Your task to perform on an android device: all mails in gmail Image 0: 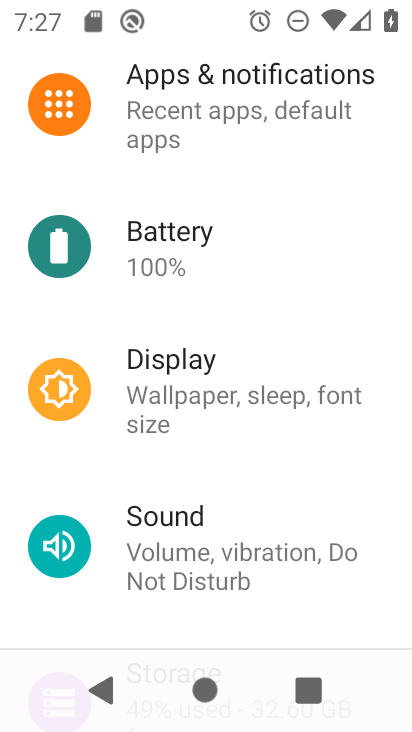
Step 0: press home button
Your task to perform on an android device: all mails in gmail Image 1: 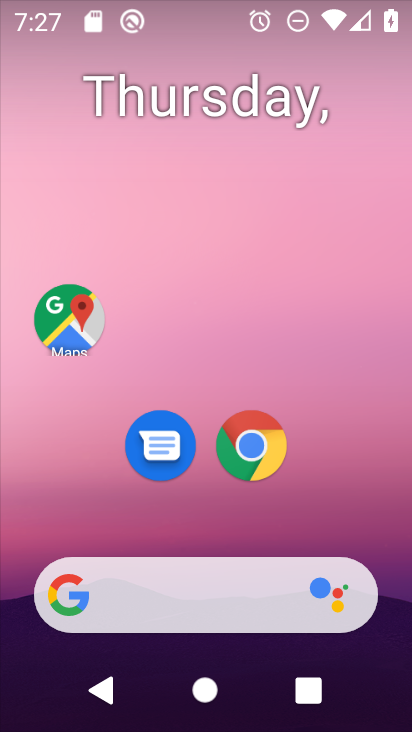
Step 1: drag from (335, 505) to (203, 114)
Your task to perform on an android device: all mails in gmail Image 2: 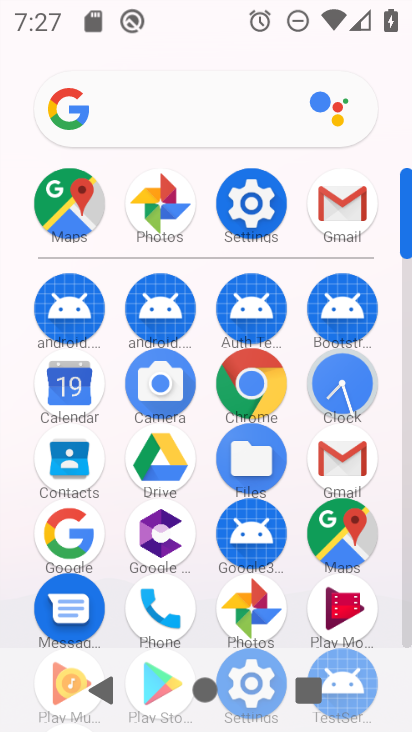
Step 2: click (335, 323)
Your task to perform on an android device: all mails in gmail Image 3: 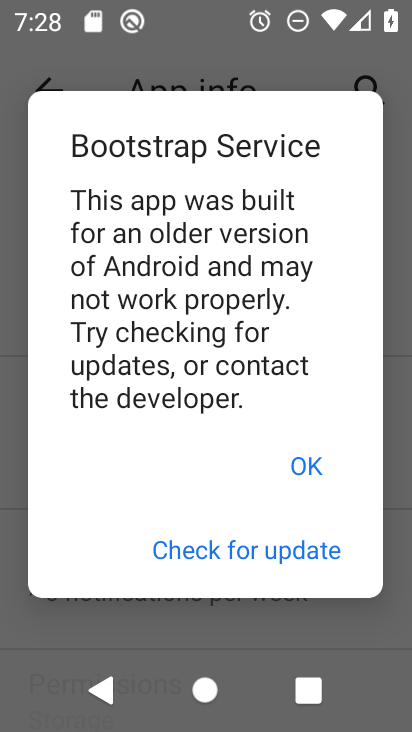
Step 3: click (302, 451)
Your task to perform on an android device: all mails in gmail Image 4: 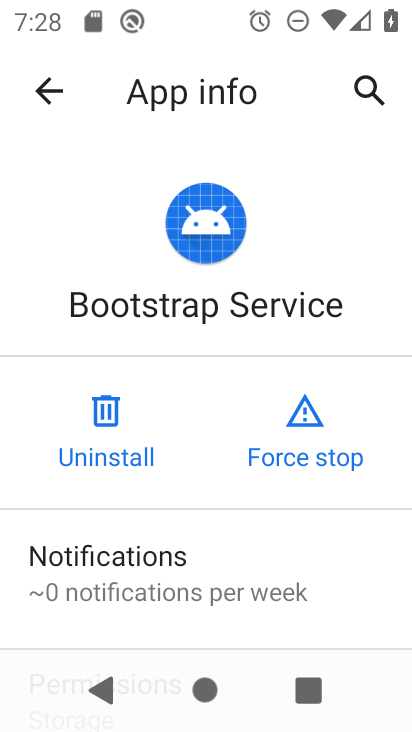
Step 4: click (47, 93)
Your task to perform on an android device: all mails in gmail Image 5: 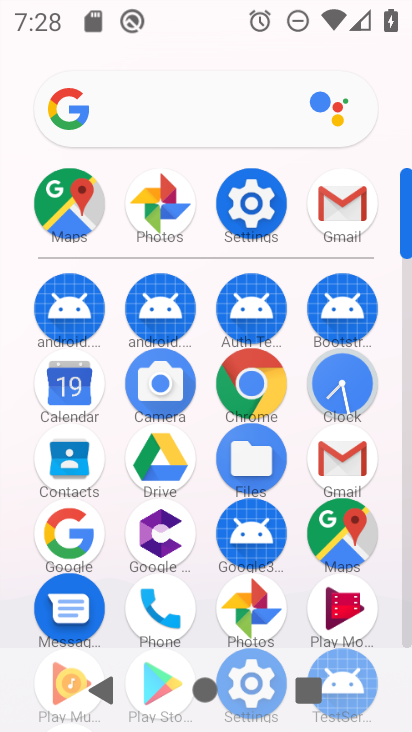
Step 5: click (342, 207)
Your task to perform on an android device: all mails in gmail Image 6: 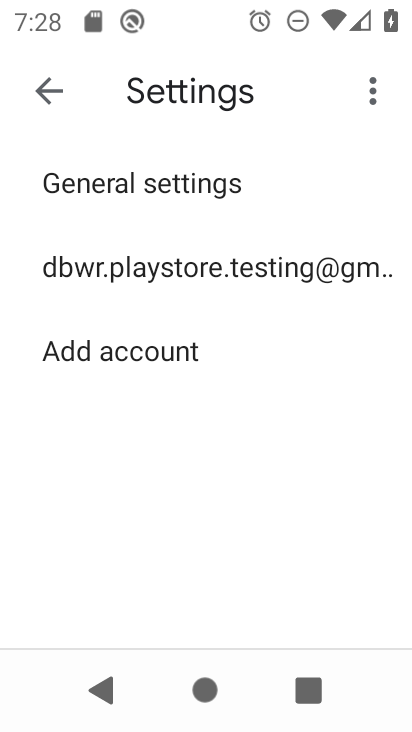
Step 6: click (54, 97)
Your task to perform on an android device: all mails in gmail Image 7: 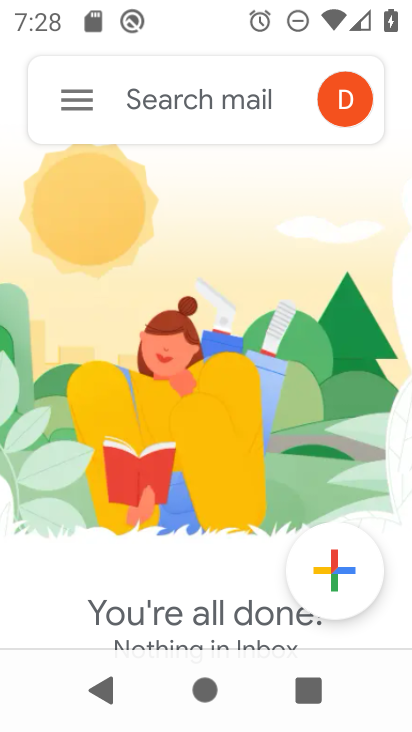
Step 7: click (63, 97)
Your task to perform on an android device: all mails in gmail Image 8: 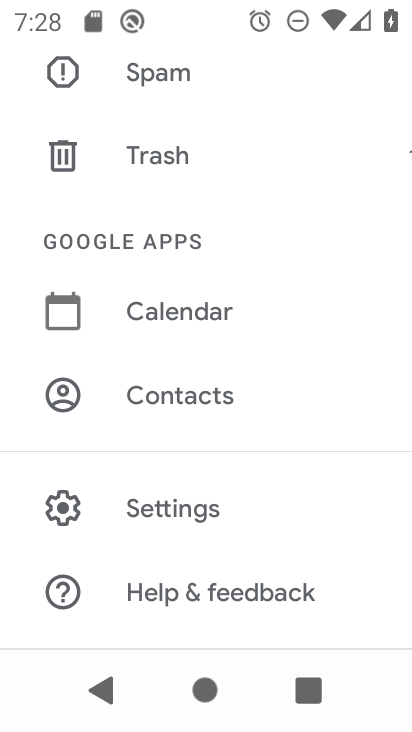
Step 8: drag from (282, 232) to (266, 571)
Your task to perform on an android device: all mails in gmail Image 9: 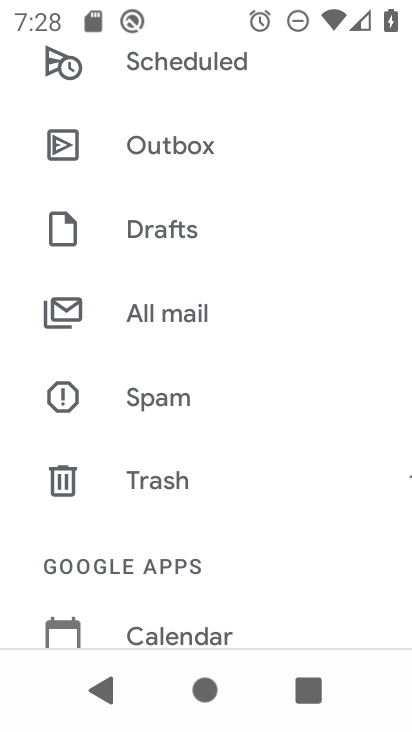
Step 9: click (157, 311)
Your task to perform on an android device: all mails in gmail Image 10: 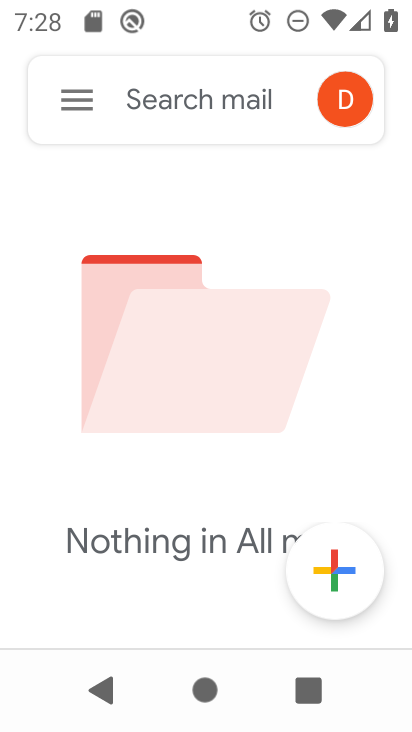
Step 10: task complete